Your task to perform on an android device: turn on data saver in the chrome app Image 0: 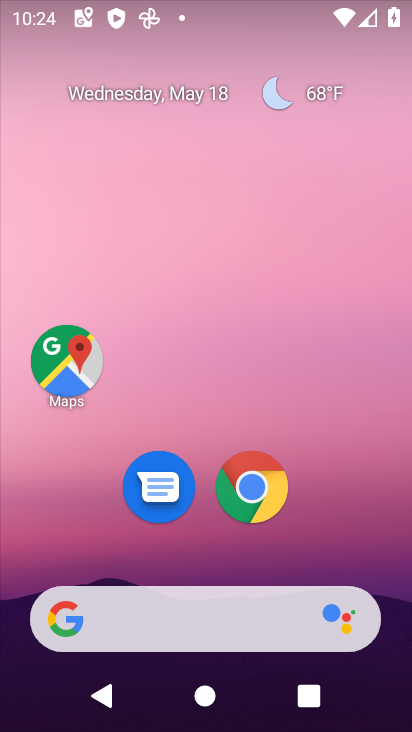
Step 0: drag from (329, 519) to (319, 206)
Your task to perform on an android device: turn on data saver in the chrome app Image 1: 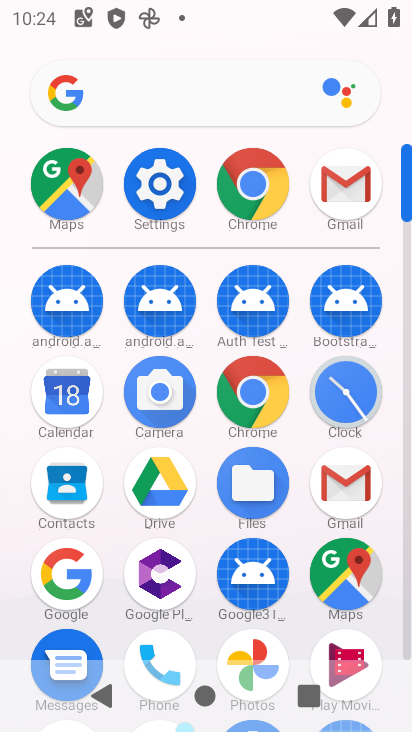
Step 1: click (248, 382)
Your task to perform on an android device: turn on data saver in the chrome app Image 2: 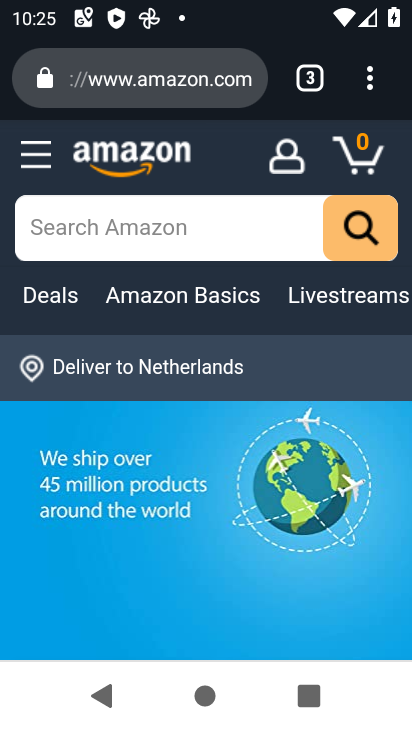
Step 2: task complete